Your task to perform on an android device: What is the recent news? Image 0: 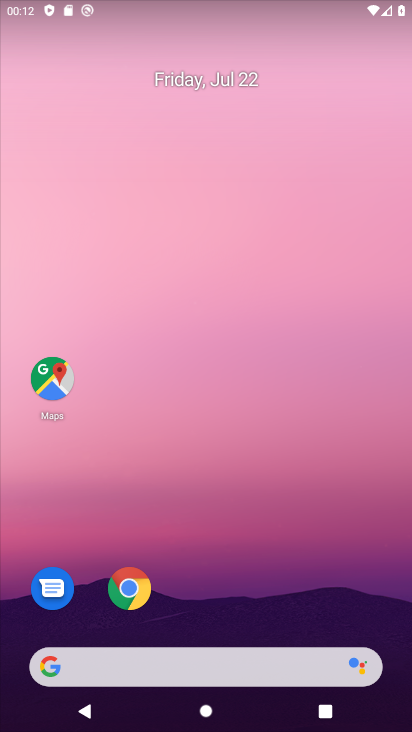
Step 0: click (181, 664)
Your task to perform on an android device: What is the recent news? Image 1: 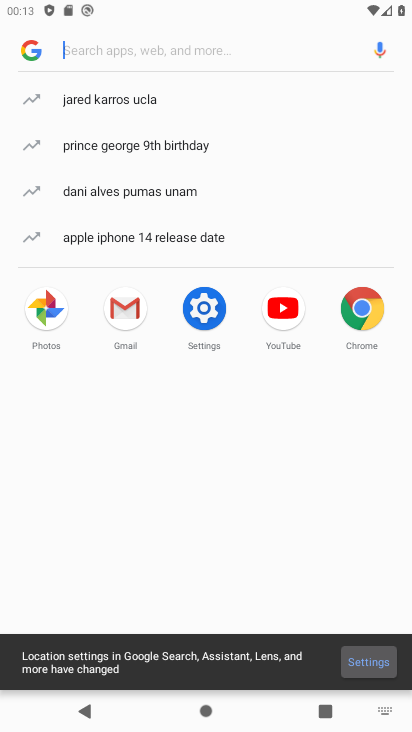
Step 1: click (76, 39)
Your task to perform on an android device: What is the recent news? Image 2: 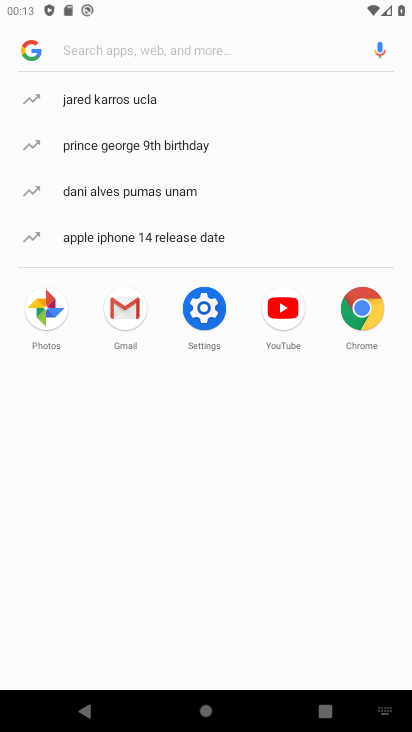
Step 2: type "recent news"
Your task to perform on an android device: What is the recent news? Image 3: 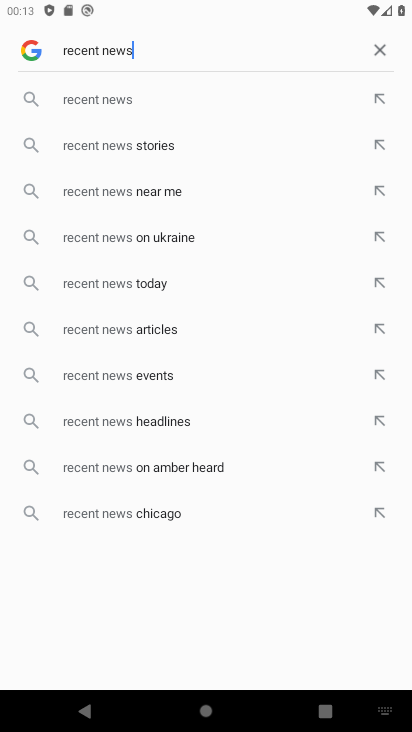
Step 3: click (92, 105)
Your task to perform on an android device: What is the recent news? Image 4: 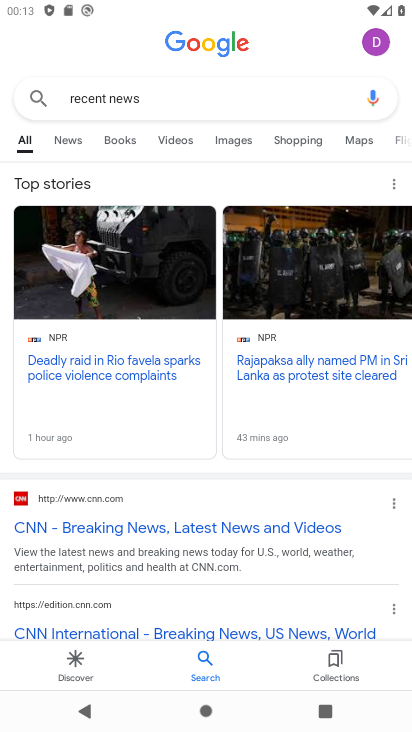
Step 4: task complete